Your task to perform on an android device: install app "DoorDash - Food Delivery" Image 0: 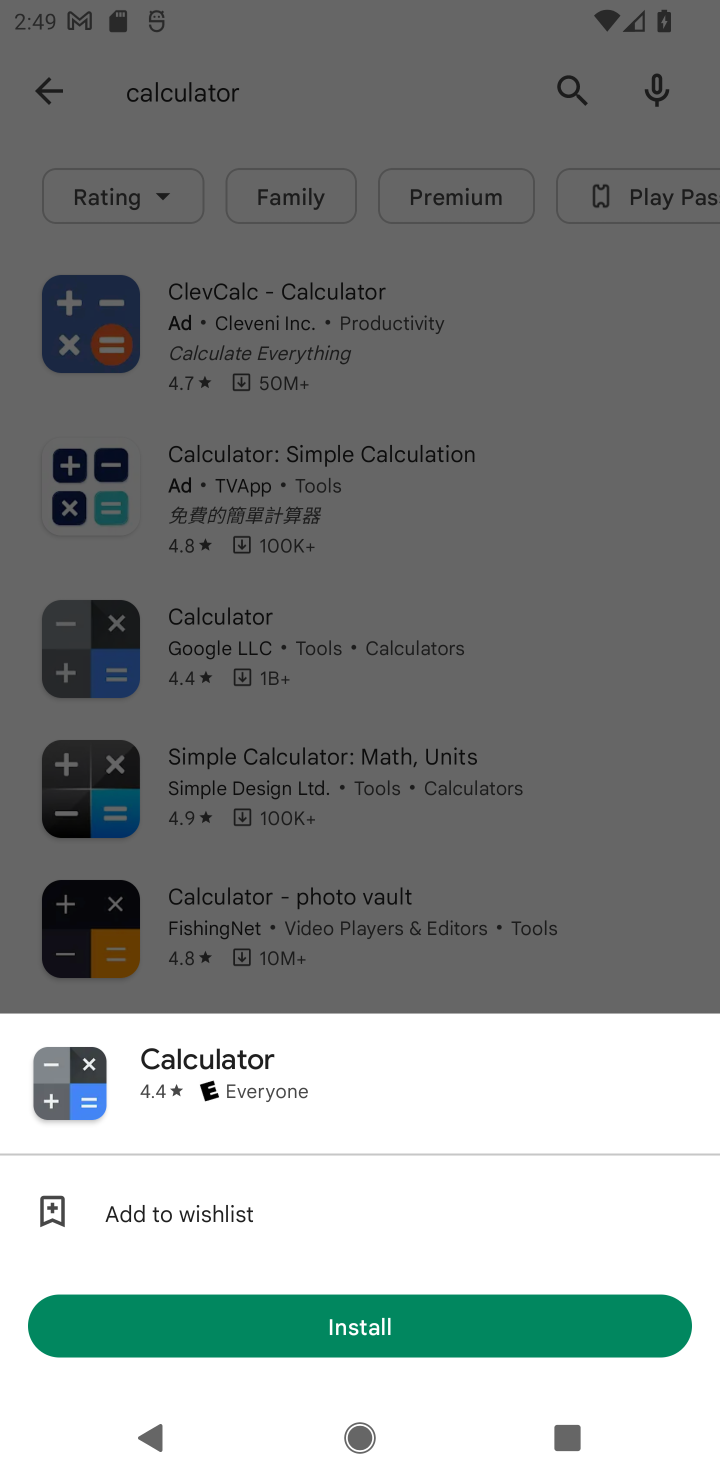
Step 0: press home button
Your task to perform on an android device: install app "DoorDash - Food Delivery" Image 1: 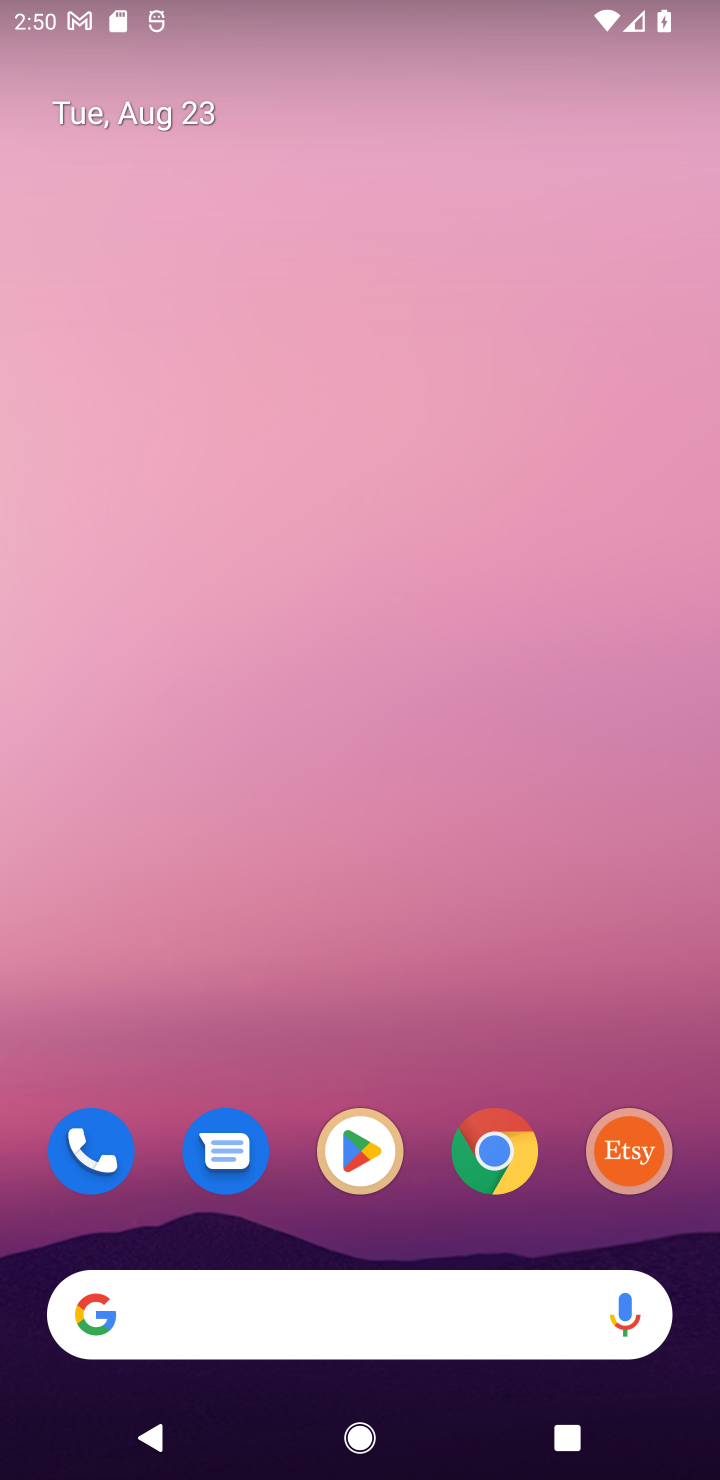
Step 1: click (375, 1138)
Your task to perform on an android device: install app "DoorDash - Food Delivery" Image 2: 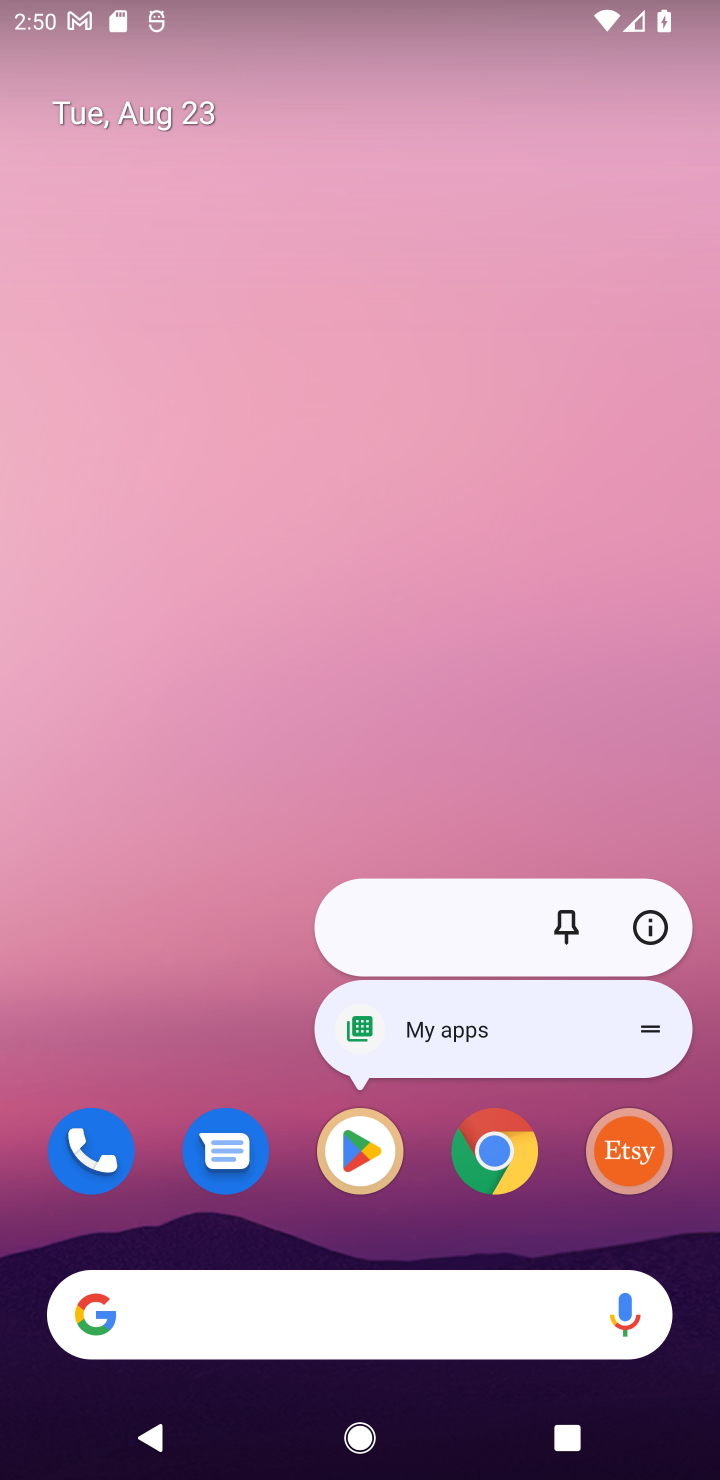
Step 2: click (373, 1151)
Your task to perform on an android device: install app "DoorDash - Food Delivery" Image 3: 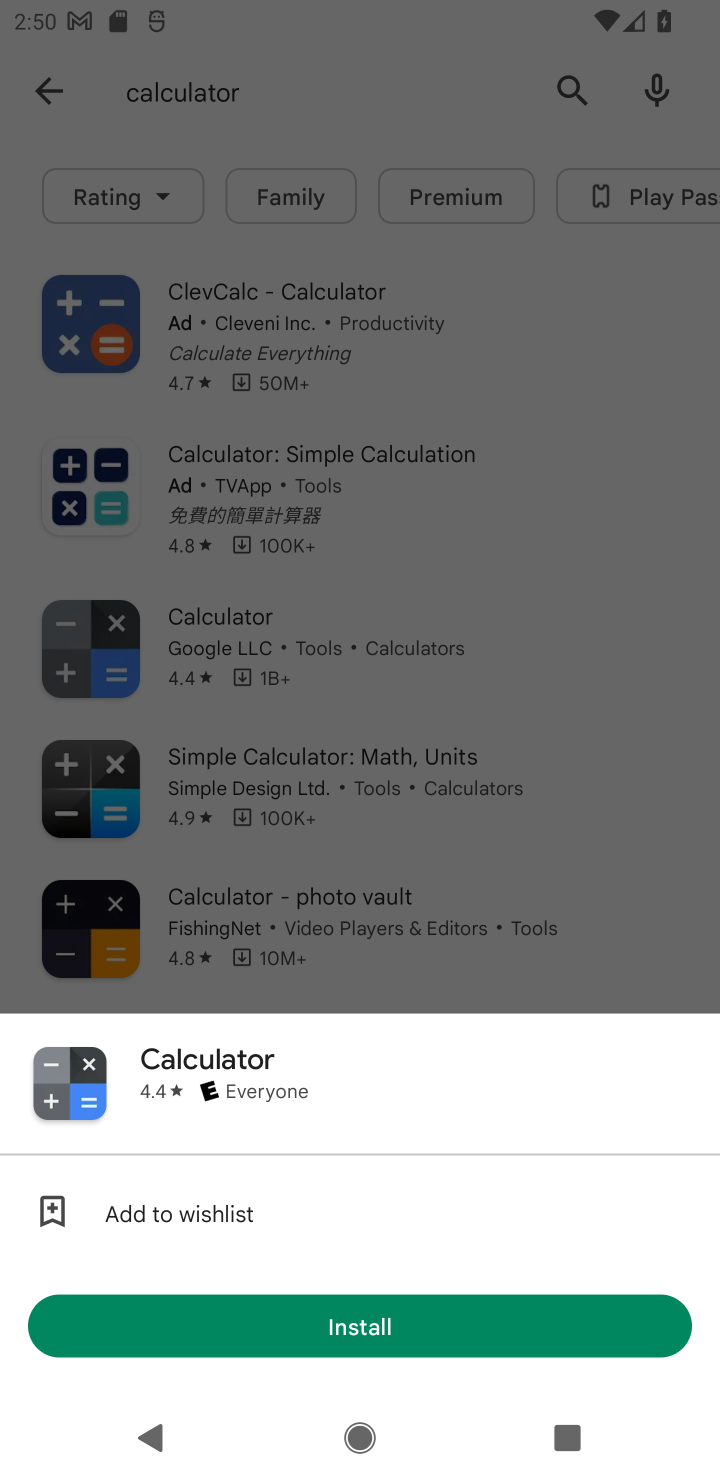
Step 3: click (573, 91)
Your task to perform on an android device: install app "DoorDash - Food Delivery" Image 4: 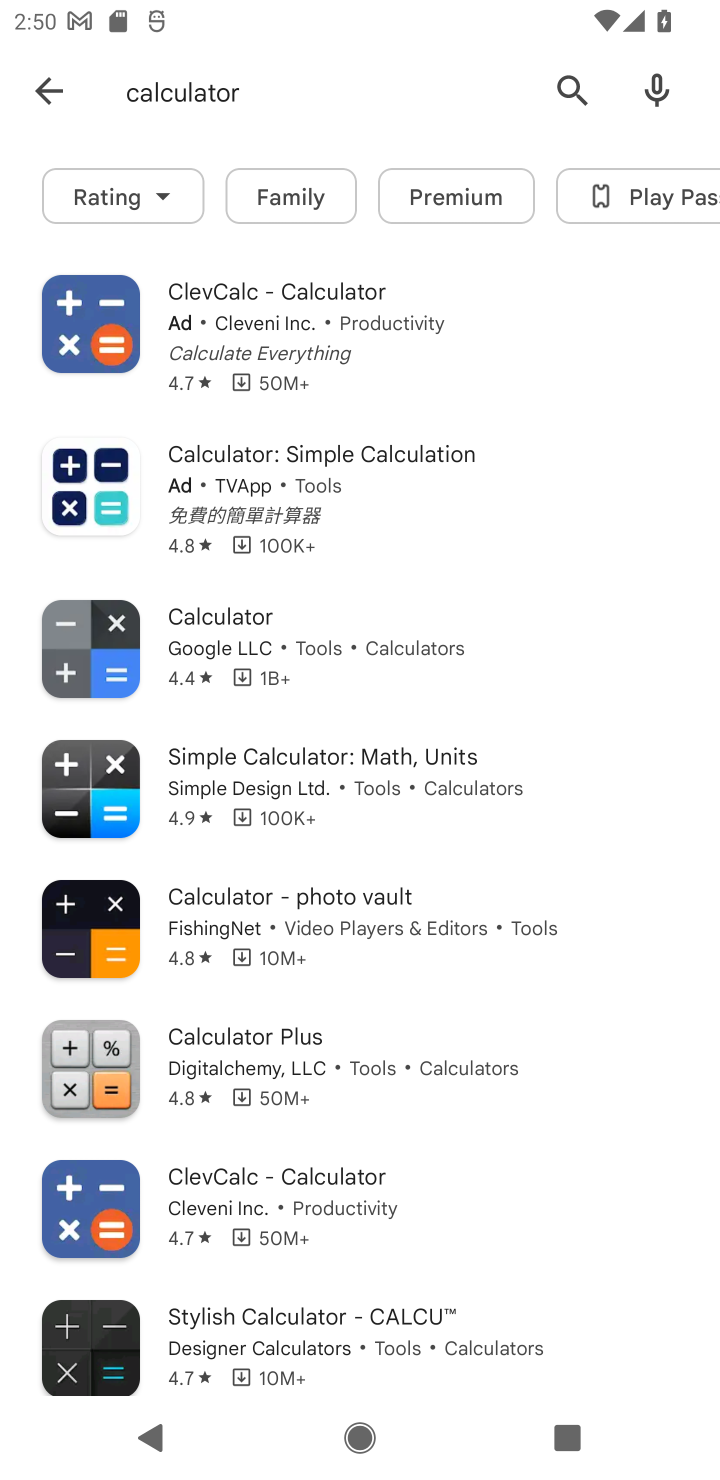
Step 4: click (559, 83)
Your task to perform on an android device: install app "DoorDash - Food Delivery" Image 5: 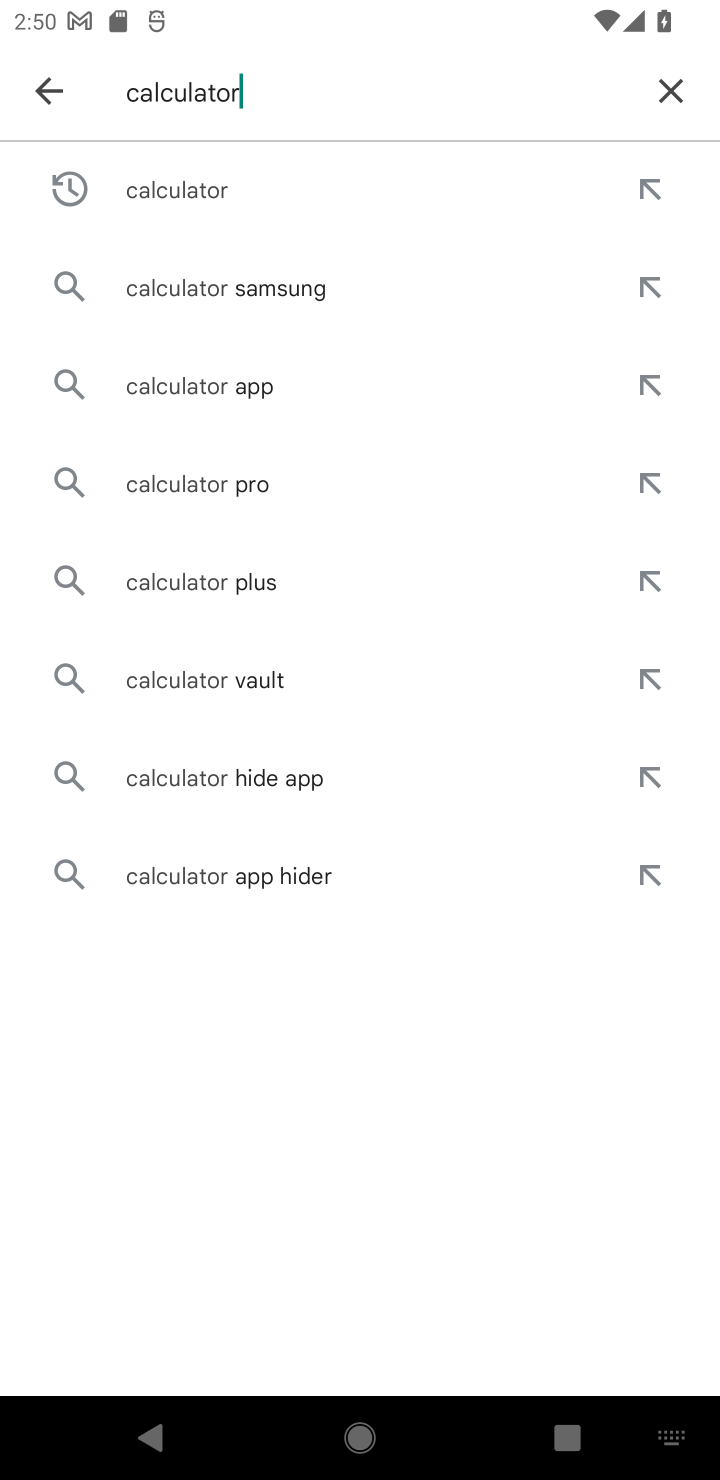
Step 5: click (666, 86)
Your task to perform on an android device: install app "DoorDash - Food Delivery" Image 6: 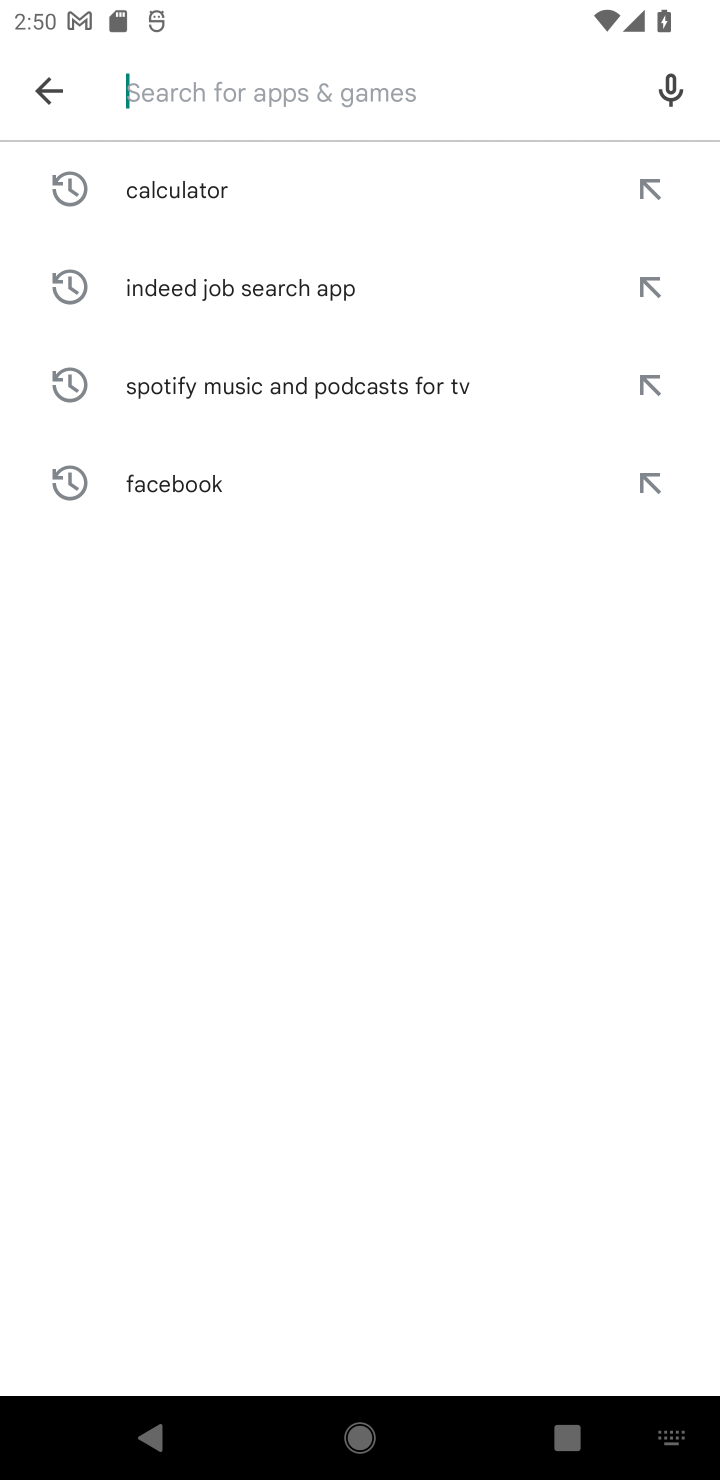
Step 6: type "DoorDash - Food Delivery"
Your task to perform on an android device: install app "DoorDash - Food Delivery" Image 7: 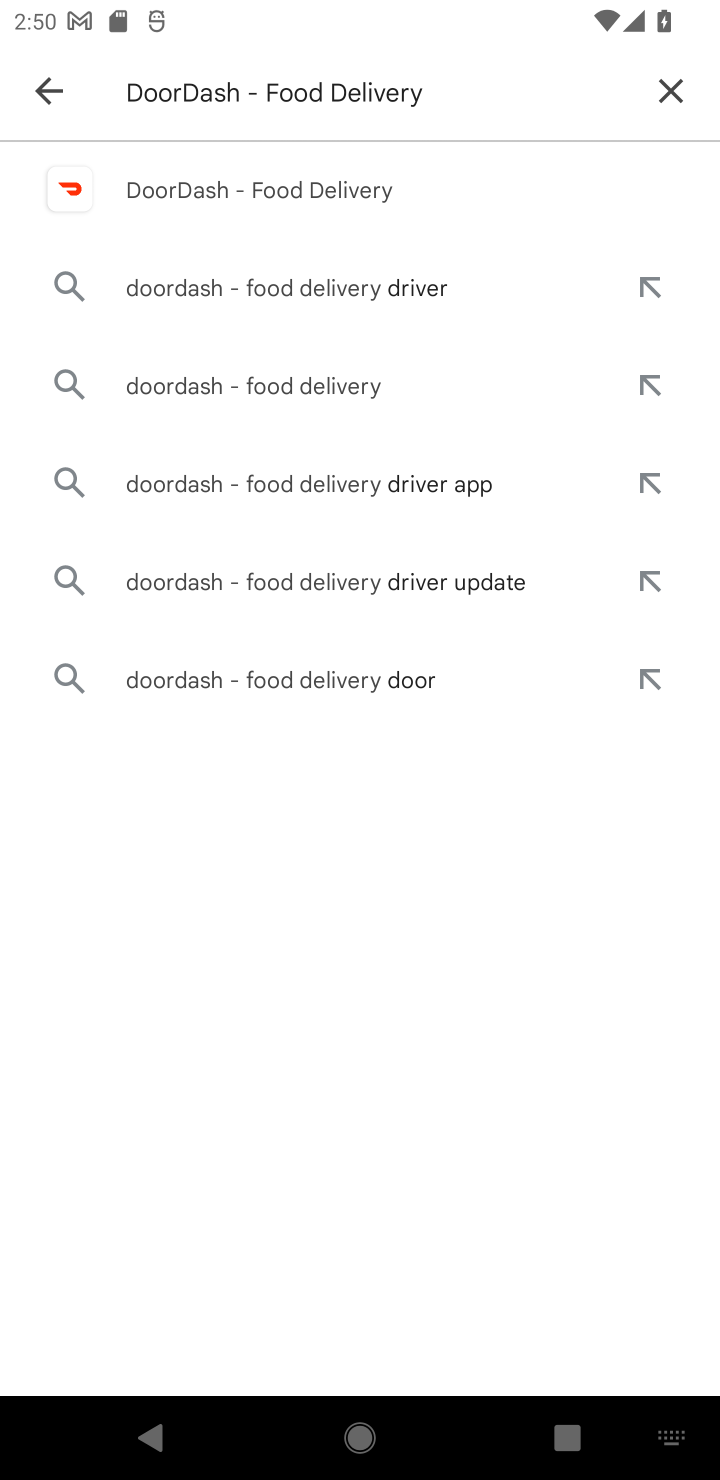
Step 7: click (203, 186)
Your task to perform on an android device: install app "DoorDash - Food Delivery" Image 8: 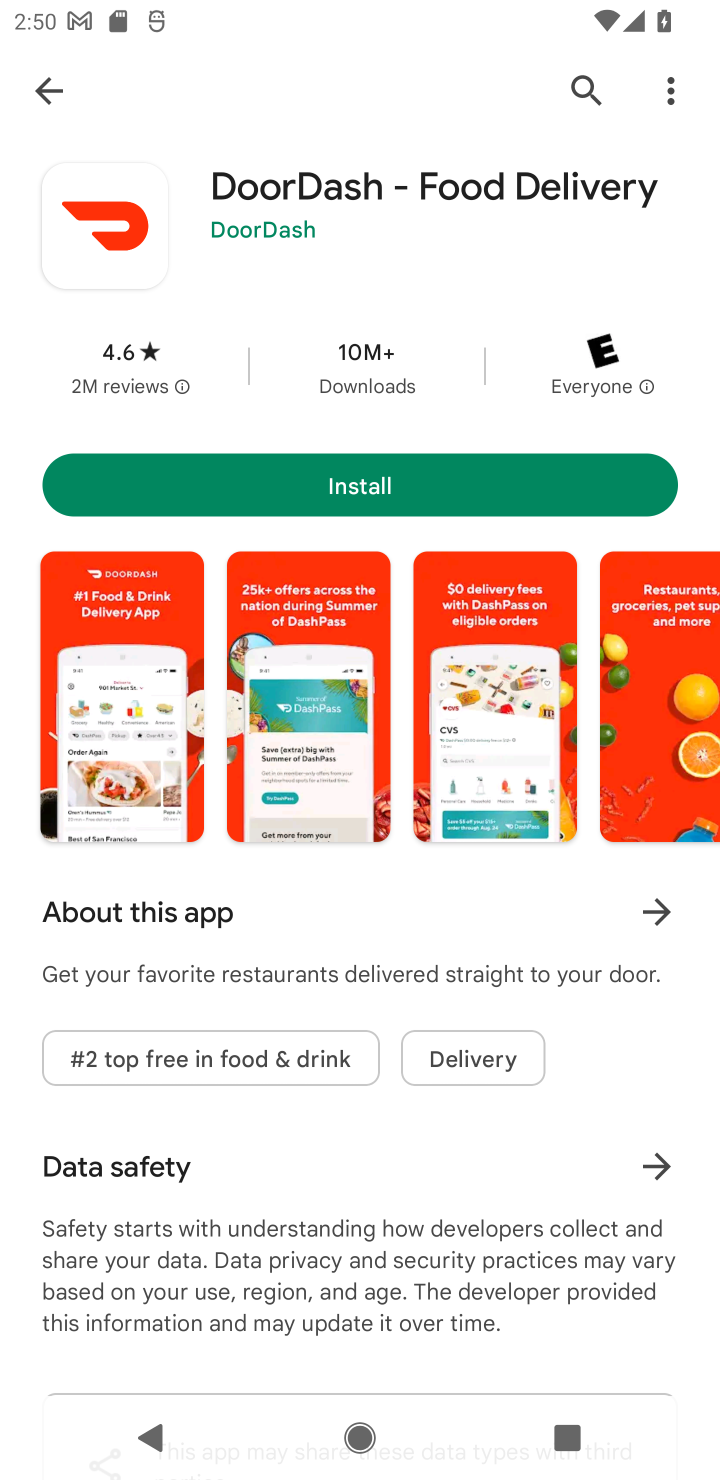
Step 8: click (375, 484)
Your task to perform on an android device: install app "DoorDash - Food Delivery" Image 9: 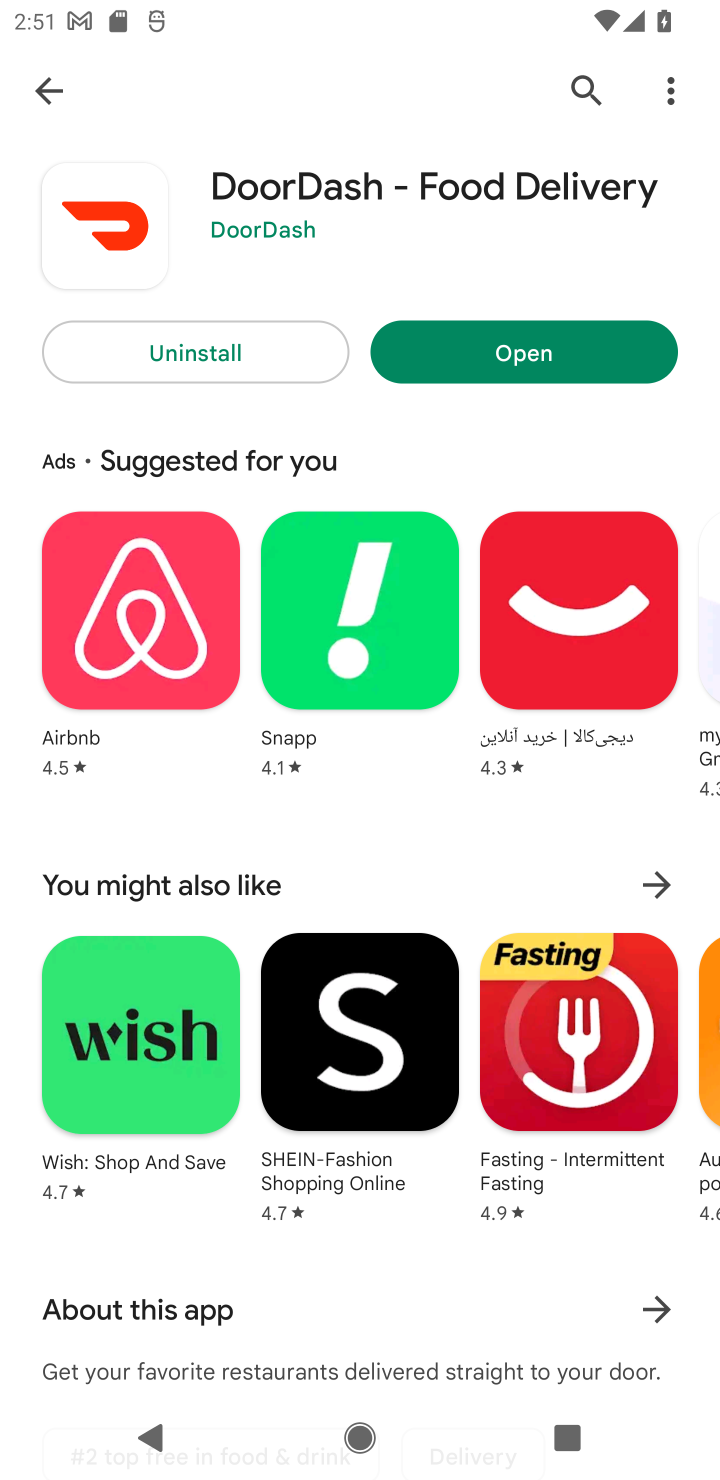
Step 9: task complete